Your task to perform on an android device: star an email in the gmail app Image 0: 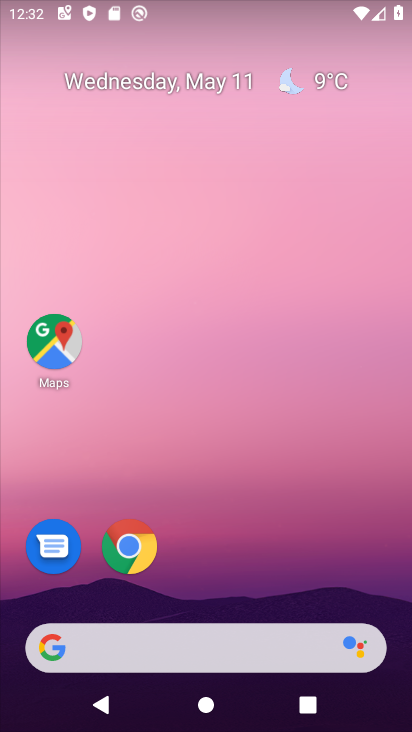
Step 0: drag from (363, 607) to (341, 72)
Your task to perform on an android device: star an email in the gmail app Image 1: 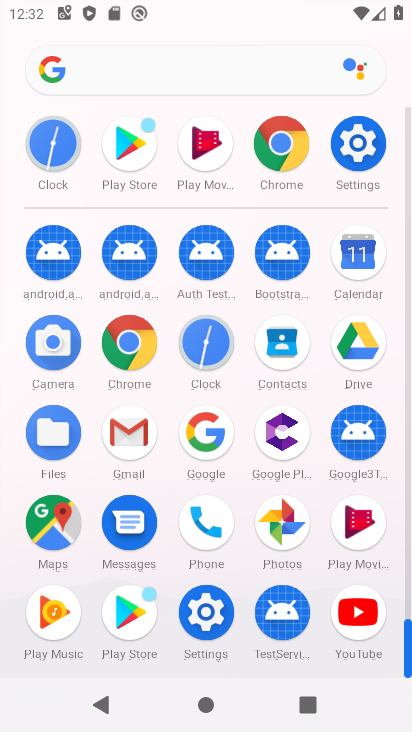
Step 1: drag from (335, 602) to (349, 405)
Your task to perform on an android device: star an email in the gmail app Image 2: 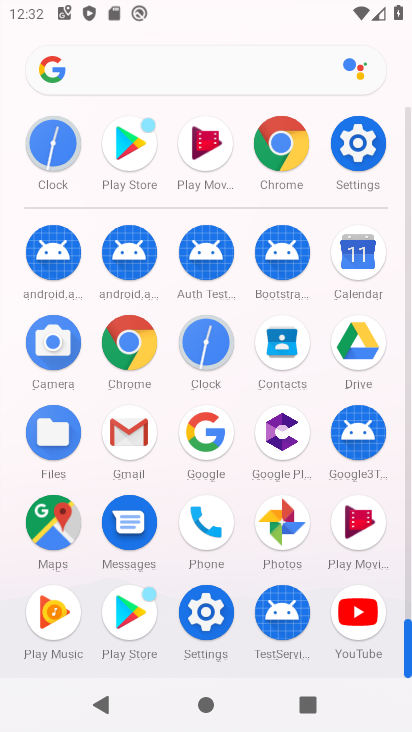
Step 2: click (129, 432)
Your task to perform on an android device: star an email in the gmail app Image 3: 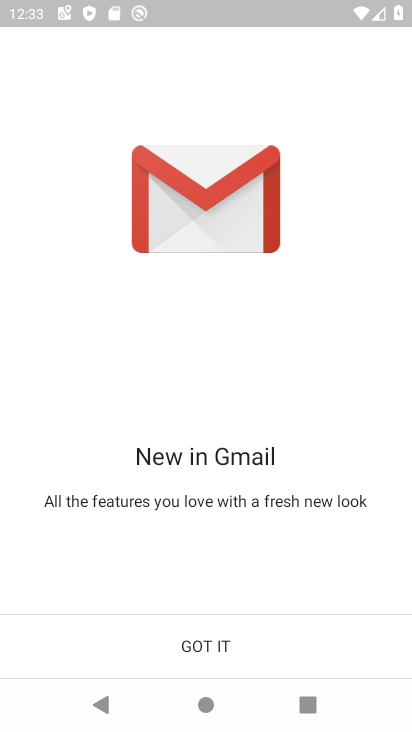
Step 3: click (217, 662)
Your task to perform on an android device: star an email in the gmail app Image 4: 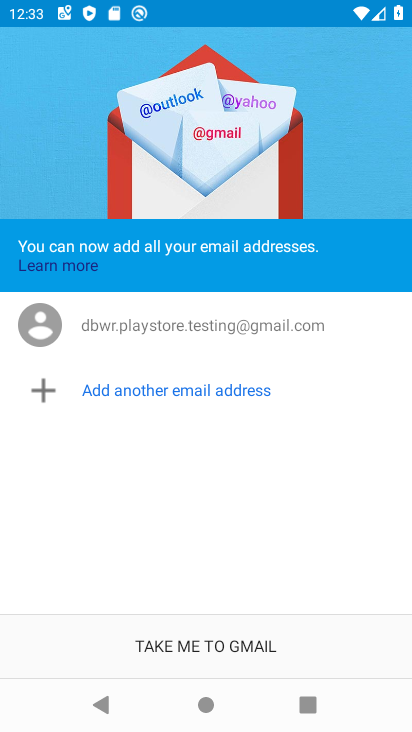
Step 4: click (223, 654)
Your task to perform on an android device: star an email in the gmail app Image 5: 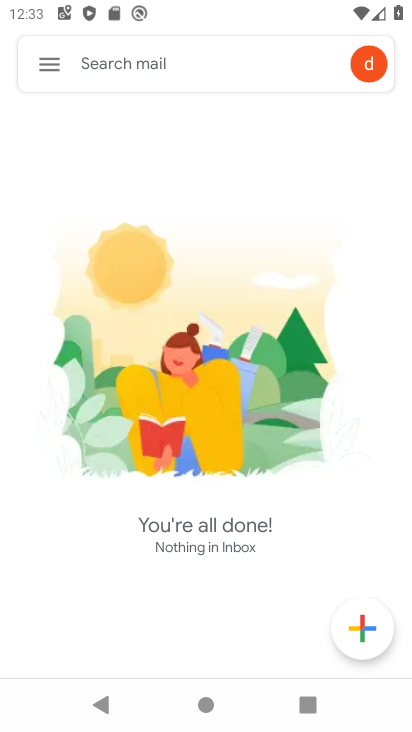
Step 5: click (44, 70)
Your task to perform on an android device: star an email in the gmail app Image 6: 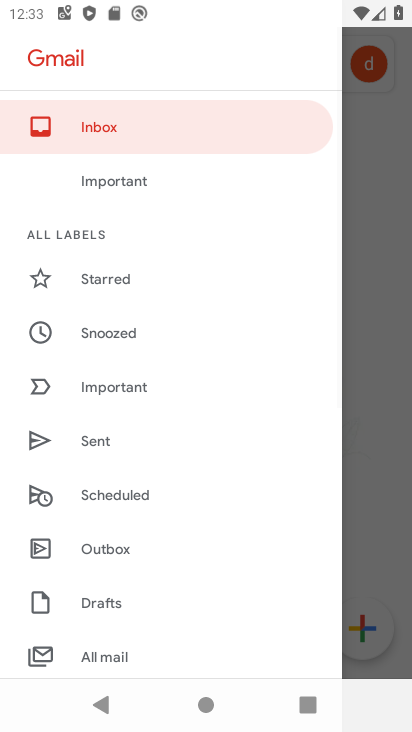
Step 6: click (121, 290)
Your task to perform on an android device: star an email in the gmail app Image 7: 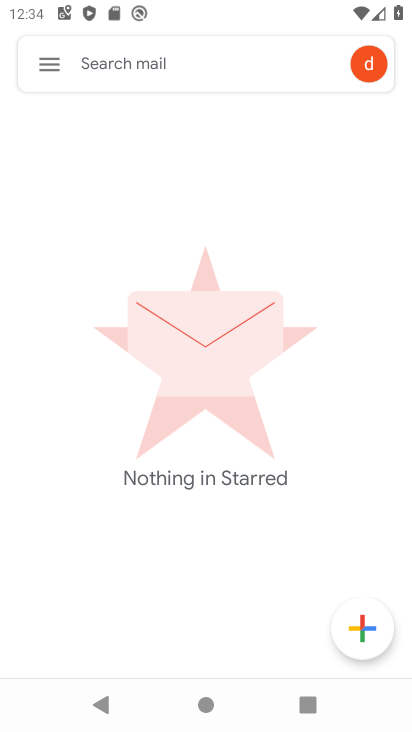
Step 7: task complete